Your task to perform on an android device: Go to accessibility settings Image 0: 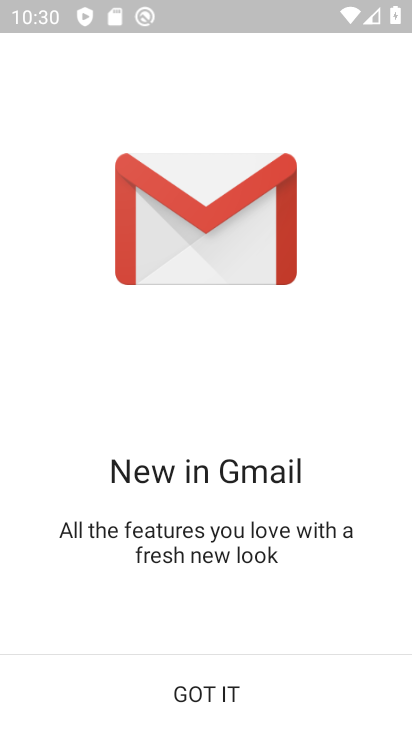
Step 0: click (346, 684)
Your task to perform on an android device: Go to accessibility settings Image 1: 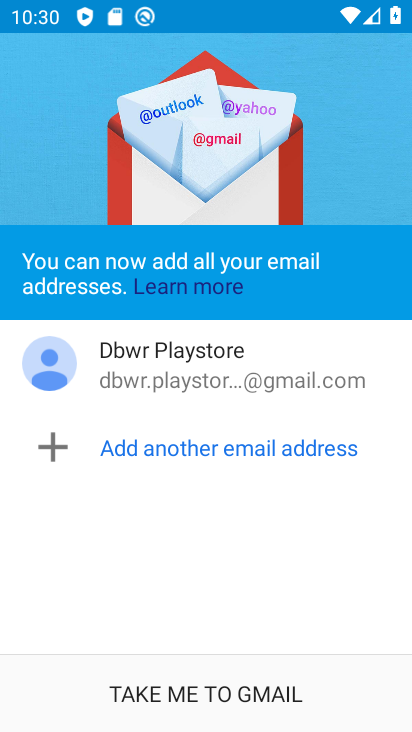
Step 1: click (346, 684)
Your task to perform on an android device: Go to accessibility settings Image 2: 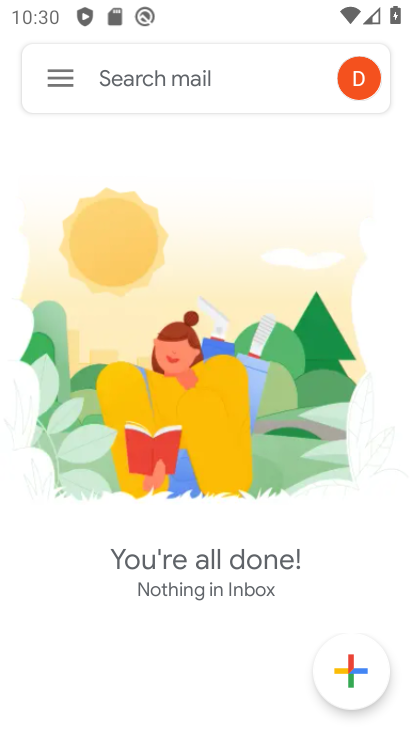
Step 2: press home button
Your task to perform on an android device: Go to accessibility settings Image 3: 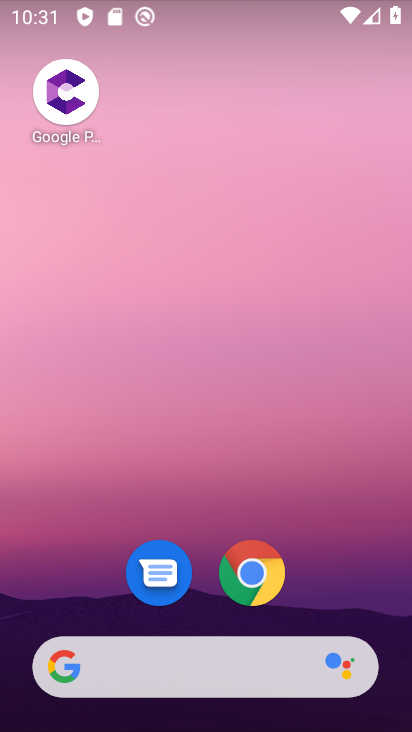
Step 3: drag from (118, 658) to (140, 159)
Your task to perform on an android device: Go to accessibility settings Image 4: 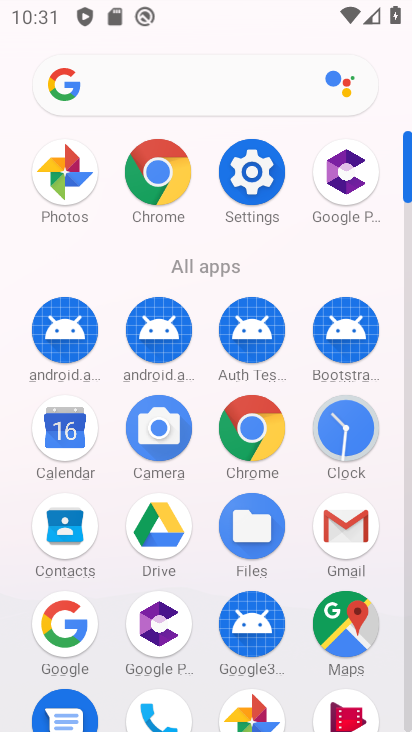
Step 4: click (269, 183)
Your task to perform on an android device: Go to accessibility settings Image 5: 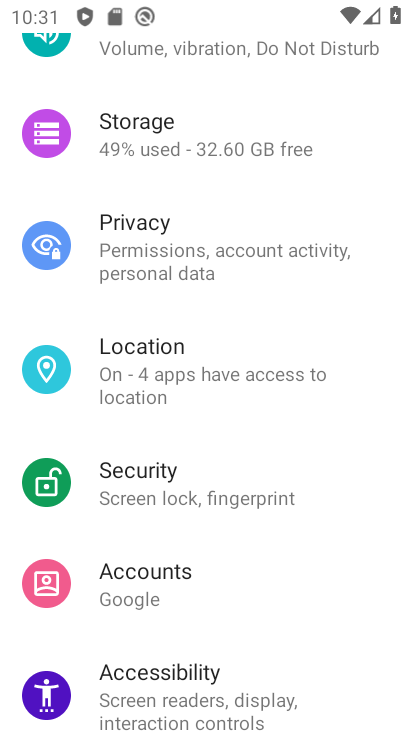
Step 5: click (231, 692)
Your task to perform on an android device: Go to accessibility settings Image 6: 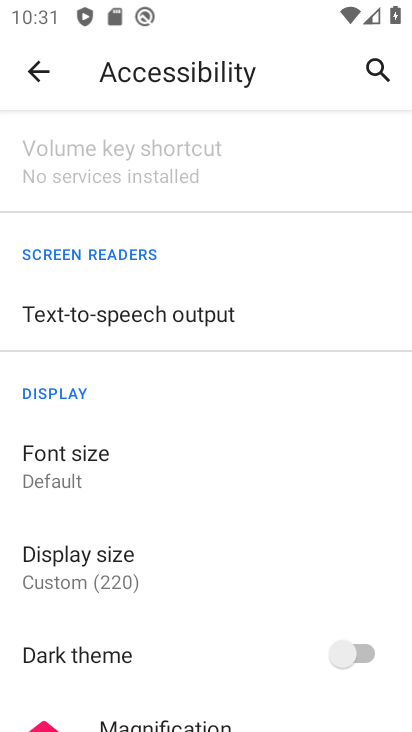
Step 6: task complete